Your task to perform on an android device: Search for "logitech g pro" on costco.com, select the first entry, add it to the cart, then select checkout. Image 0: 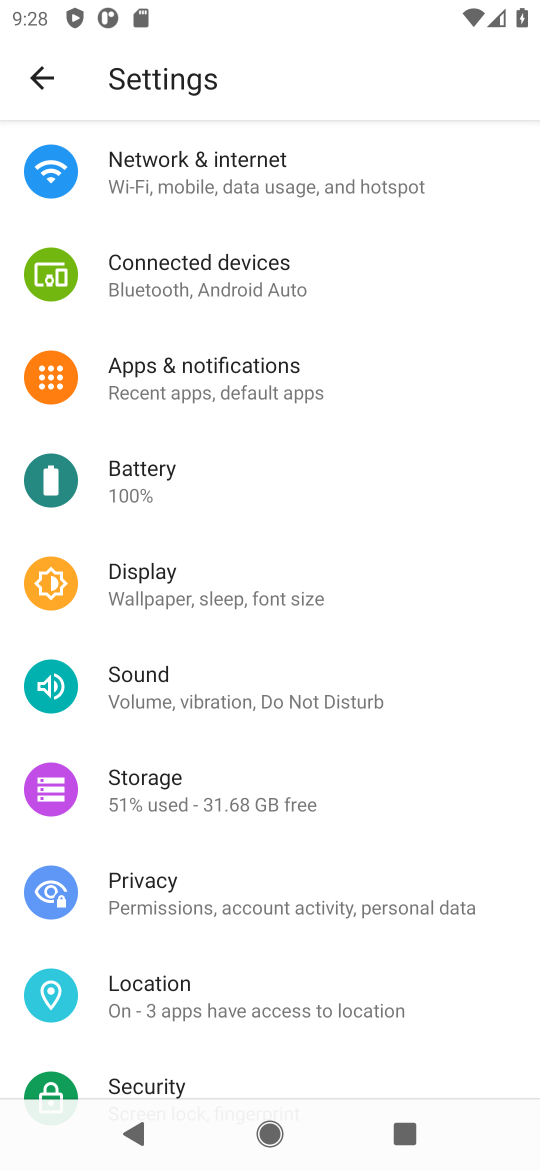
Step 0: press home button
Your task to perform on an android device: Search for "logitech g pro" on costco.com, select the first entry, add it to the cart, then select checkout. Image 1: 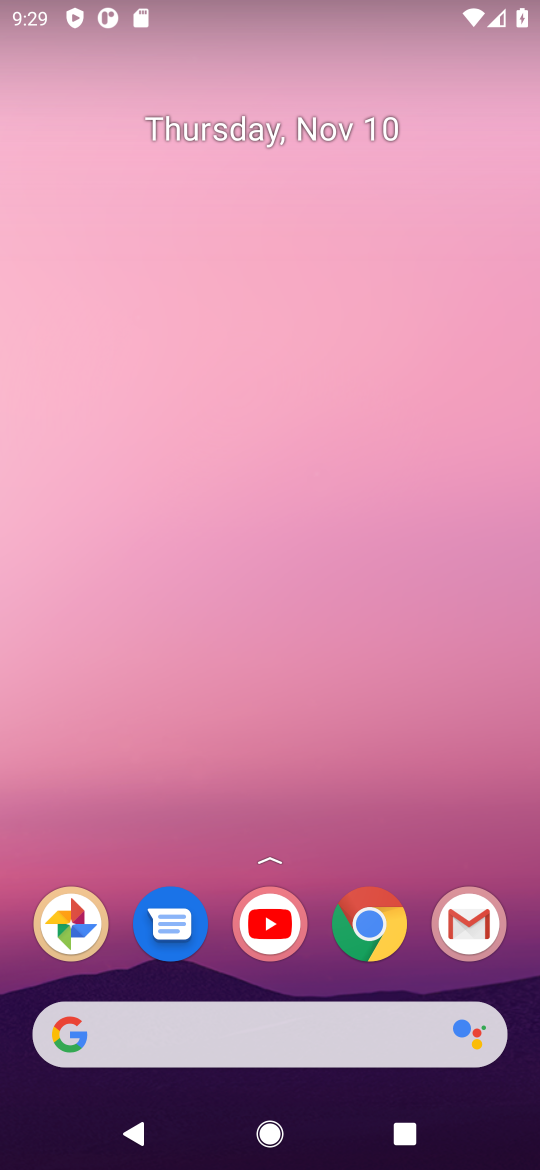
Step 1: click (375, 923)
Your task to perform on an android device: Search for "logitech g pro" on costco.com, select the first entry, add it to the cart, then select checkout. Image 2: 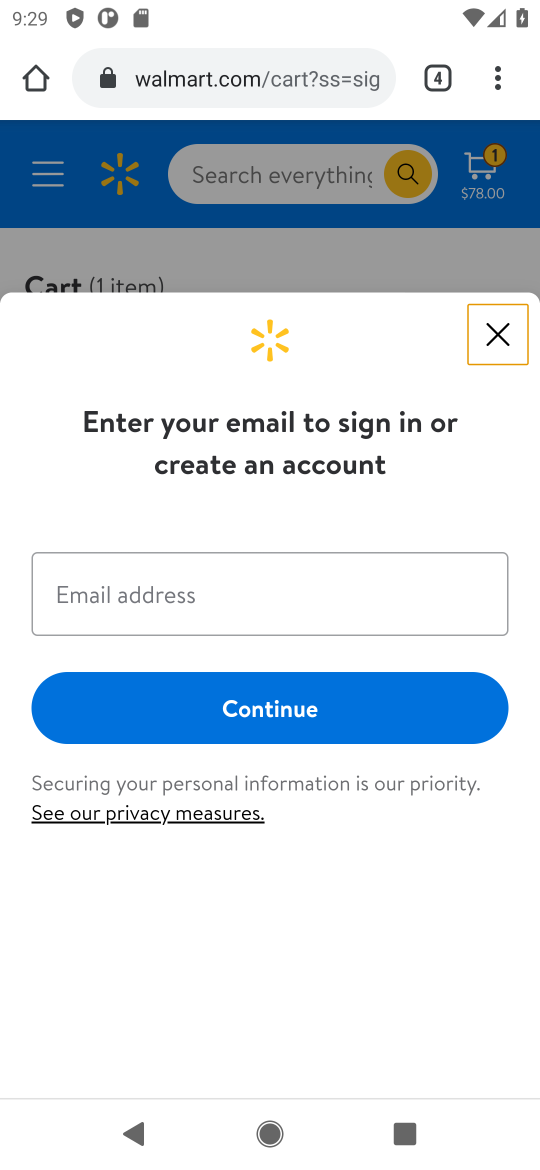
Step 2: click (206, 69)
Your task to perform on an android device: Search for "logitech g pro" on costco.com, select the first entry, add it to the cart, then select checkout. Image 3: 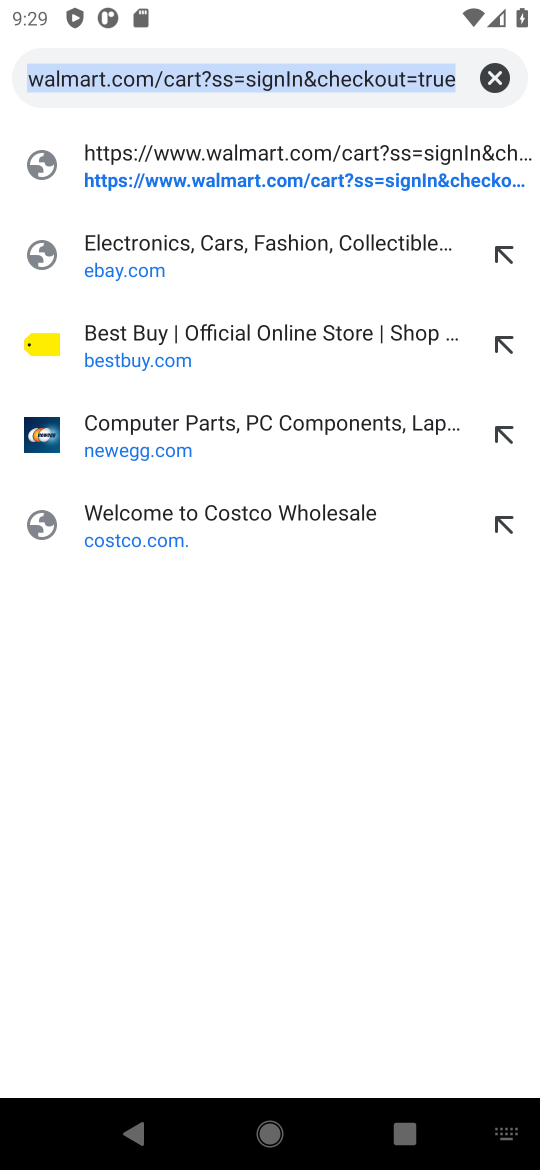
Step 3: click (148, 524)
Your task to perform on an android device: Search for "logitech g pro" on costco.com, select the first entry, add it to the cart, then select checkout. Image 4: 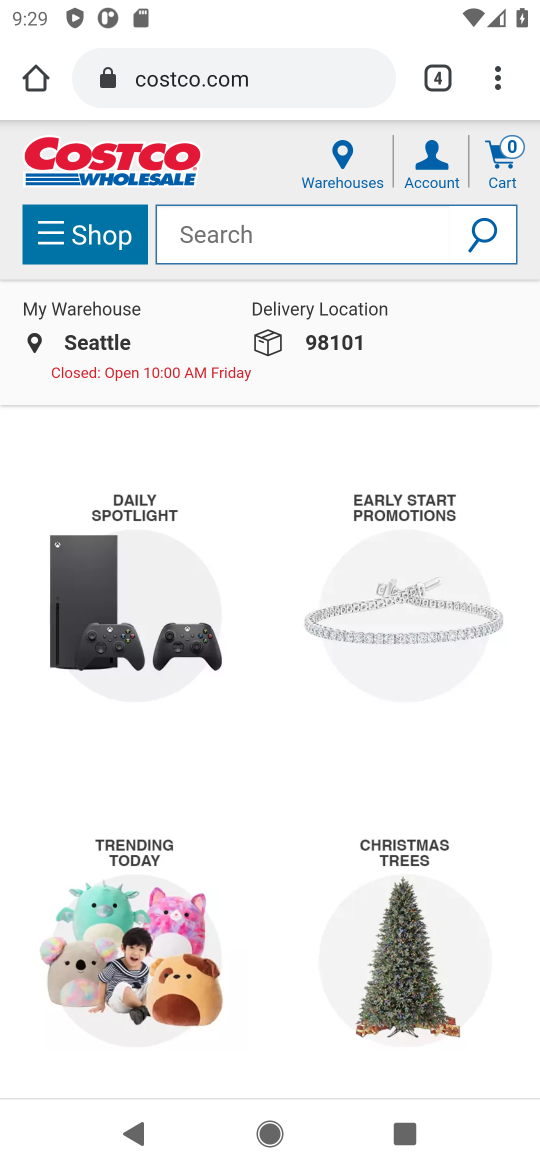
Step 4: click (194, 213)
Your task to perform on an android device: Search for "logitech g pro" on costco.com, select the first entry, add it to the cart, then select checkout. Image 5: 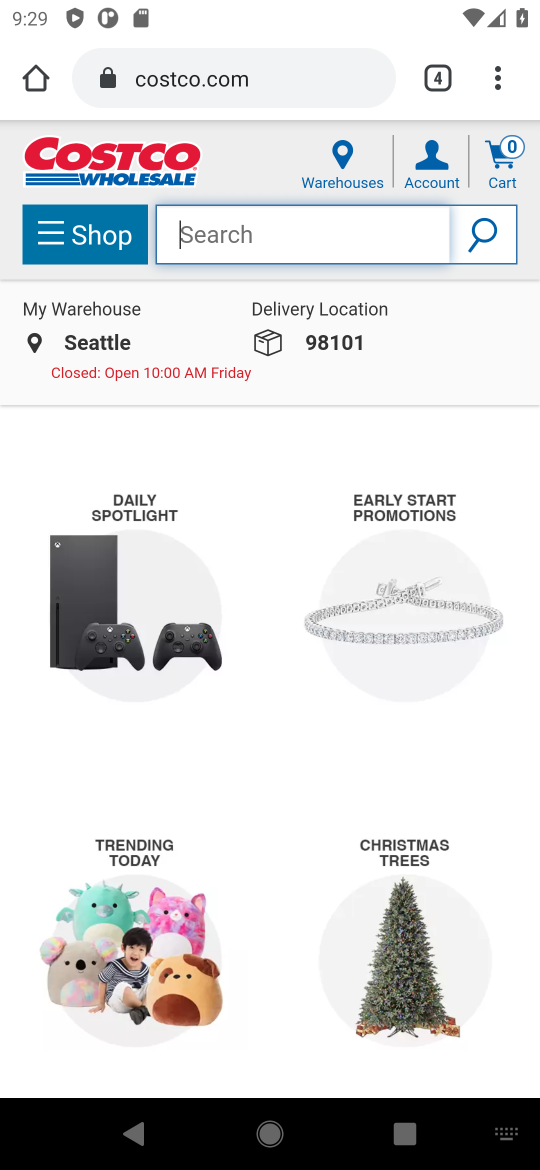
Step 5: type "logitech g pro"
Your task to perform on an android device: Search for "logitech g pro" on costco.com, select the first entry, add it to the cart, then select checkout. Image 6: 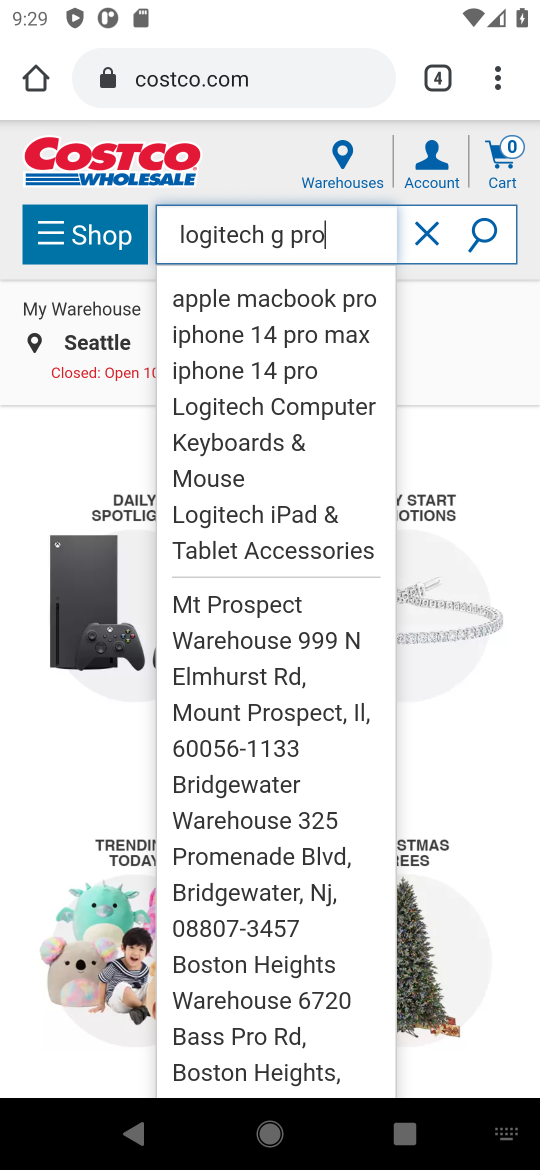
Step 6: click (480, 246)
Your task to perform on an android device: Search for "logitech g pro" on costco.com, select the first entry, add it to the cart, then select checkout. Image 7: 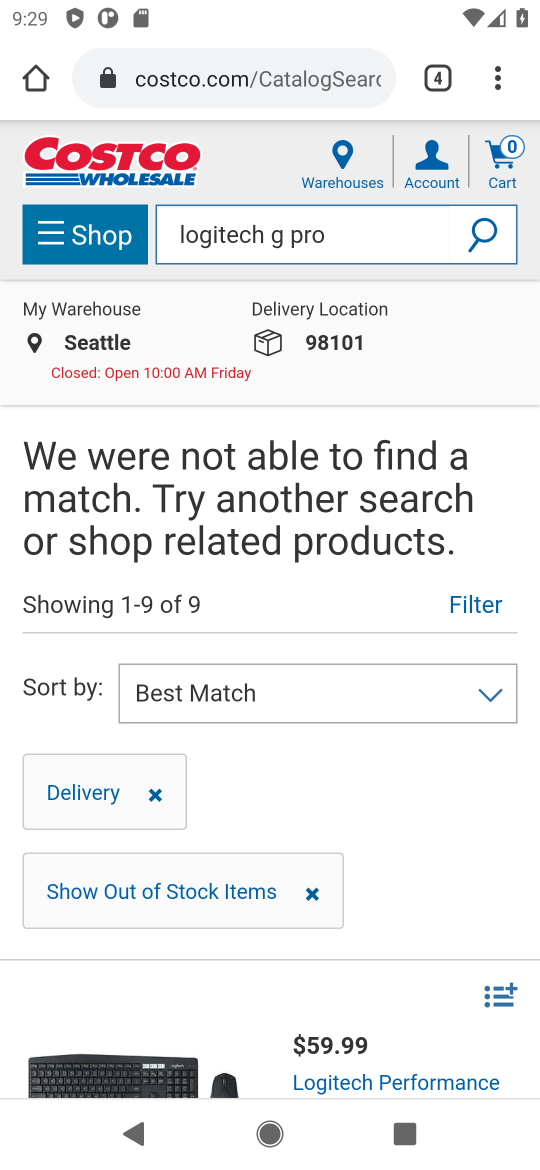
Step 7: task complete